Your task to perform on an android device: What's on my calendar today? Image 0: 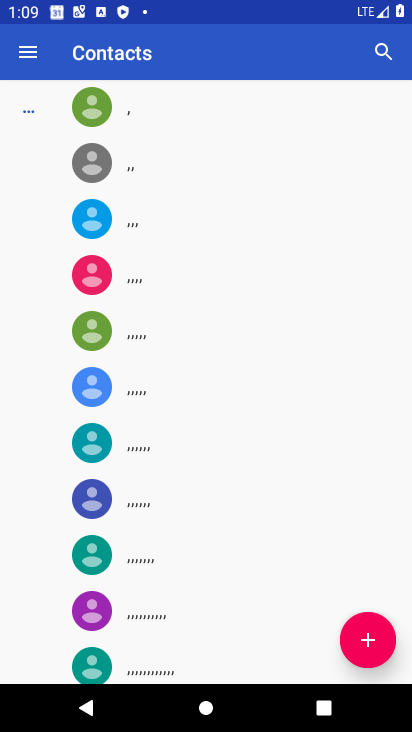
Step 0: press home button
Your task to perform on an android device: What's on my calendar today? Image 1: 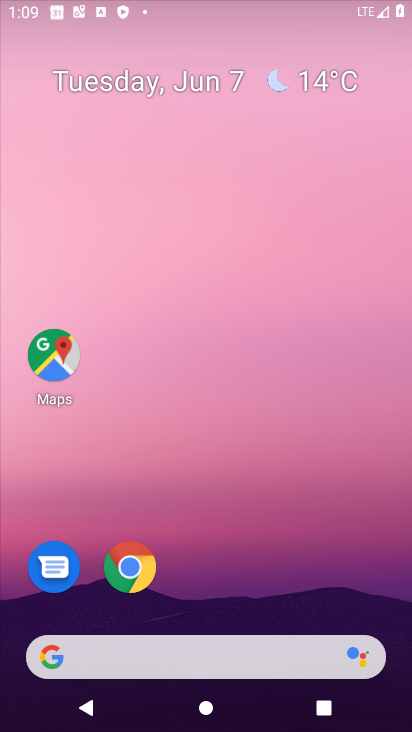
Step 1: drag from (257, 680) to (284, 100)
Your task to perform on an android device: What's on my calendar today? Image 2: 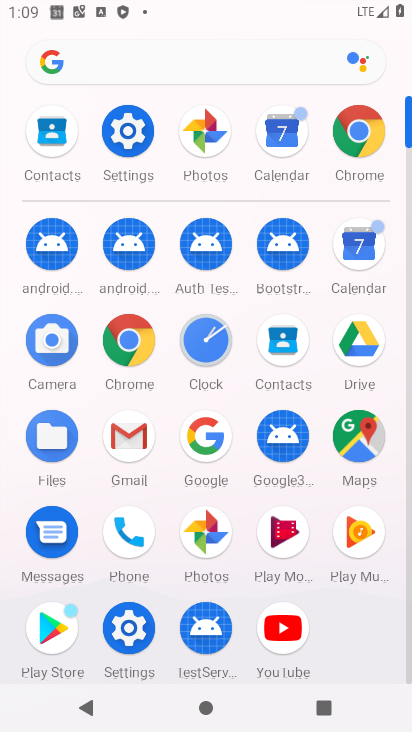
Step 2: click (359, 234)
Your task to perform on an android device: What's on my calendar today? Image 3: 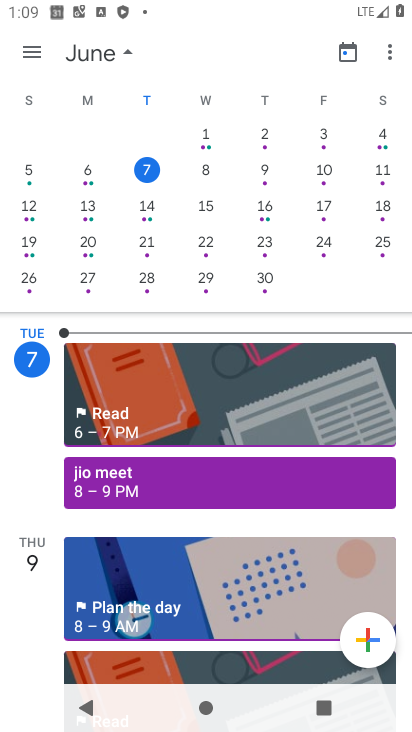
Step 3: task complete